Your task to perform on an android device: check data usage Image 0: 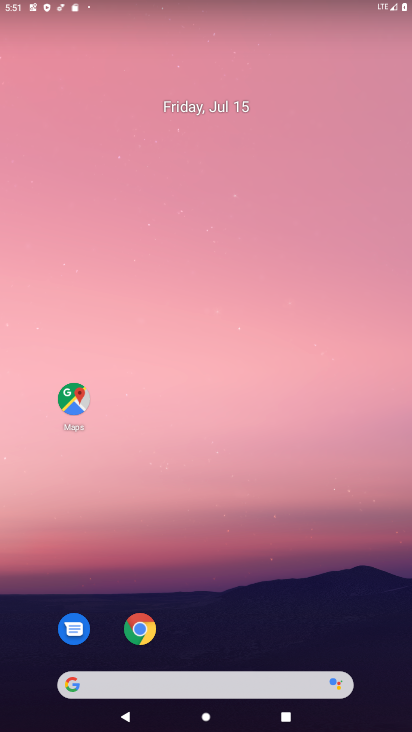
Step 0: press home button
Your task to perform on an android device: check data usage Image 1: 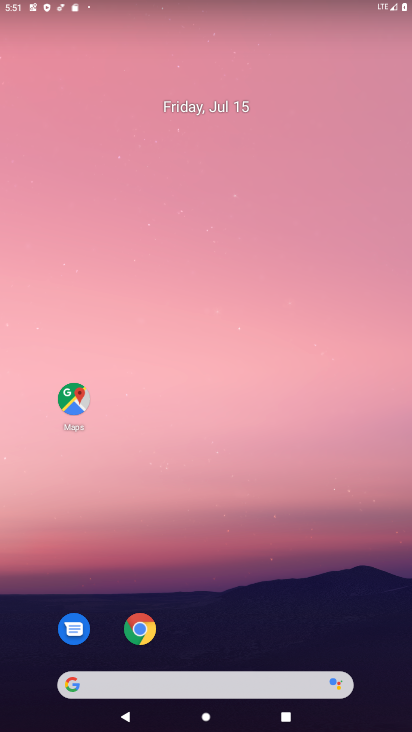
Step 1: drag from (246, 528) to (303, 0)
Your task to perform on an android device: check data usage Image 2: 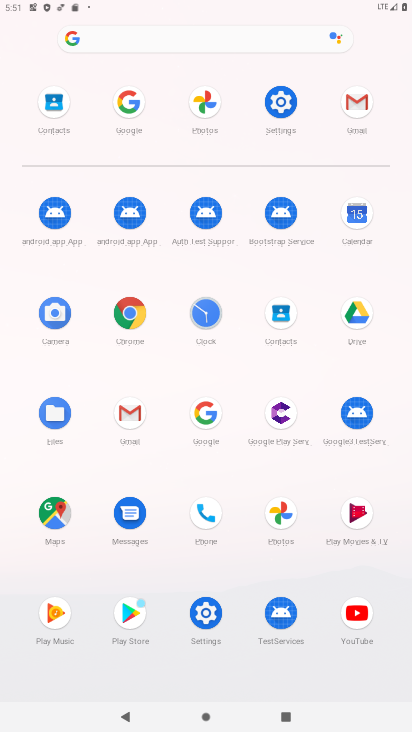
Step 2: click (283, 110)
Your task to perform on an android device: check data usage Image 3: 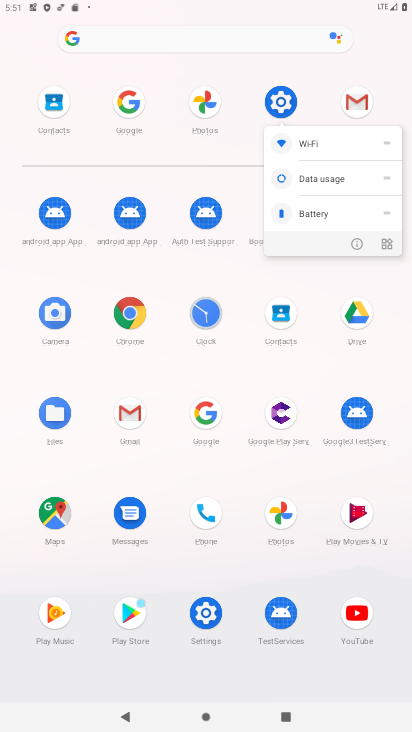
Step 3: click (284, 90)
Your task to perform on an android device: check data usage Image 4: 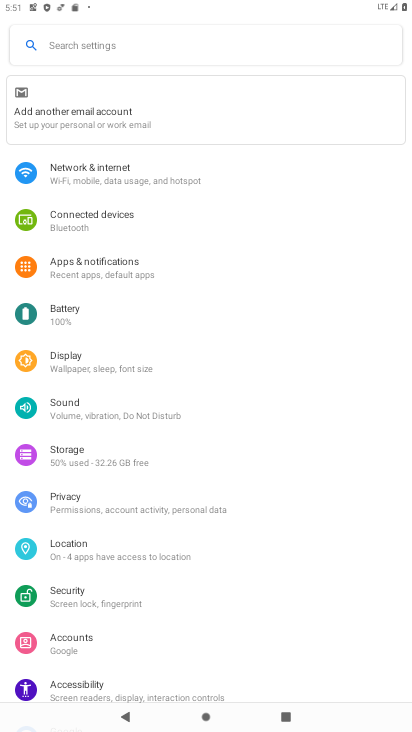
Step 4: click (83, 179)
Your task to perform on an android device: check data usage Image 5: 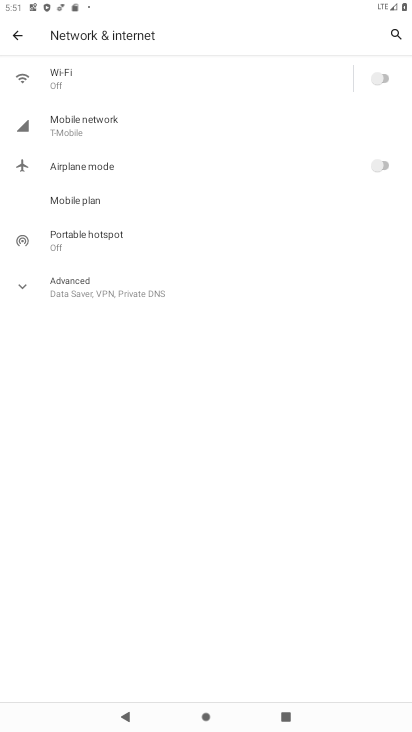
Step 5: click (84, 121)
Your task to perform on an android device: check data usage Image 6: 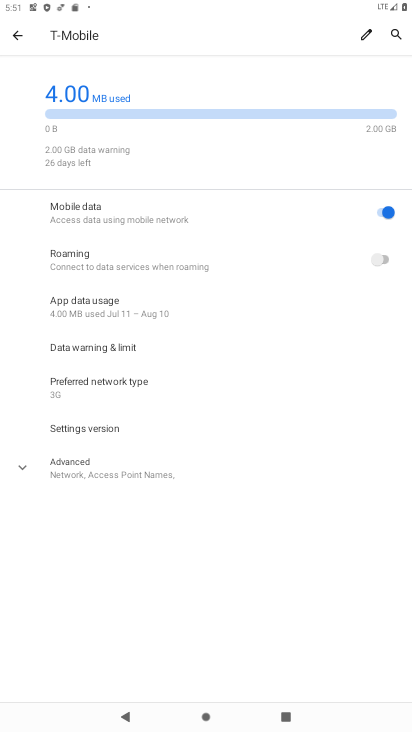
Step 6: click (87, 297)
Your task to perform on an android device: check data usage Image 7: 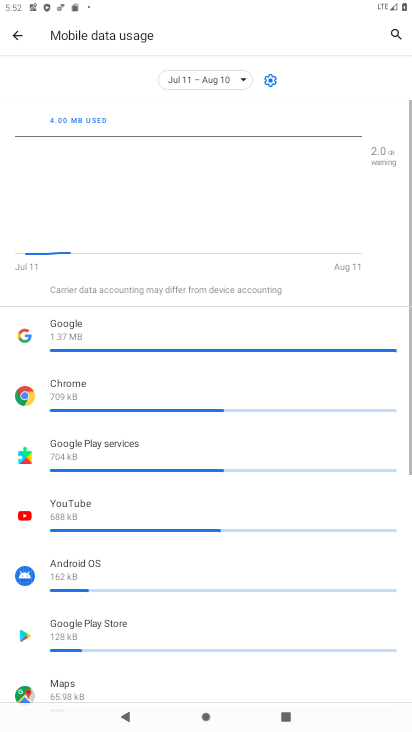
Step 7: task complete